Your task to perform on an android device: Go to battery settings Image 0: 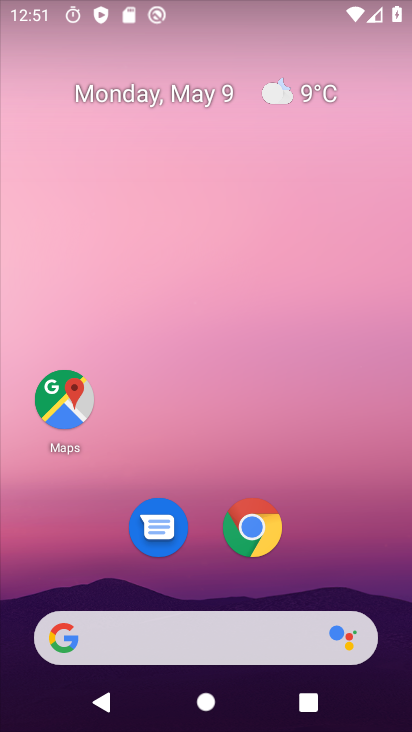
Step 0: drag from (198, 549) to (298, 62)
Your task to perform on an android device: Go to battery settings Image 1: 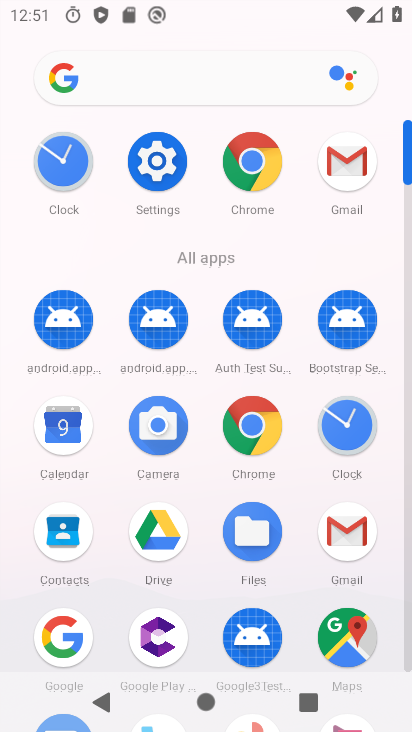
Step 1: click (145, 164)
Your task to perform on an android device: Go to battery settings Image 2: 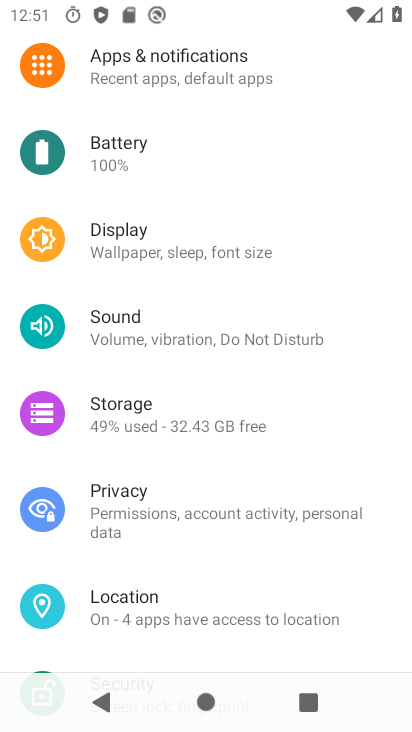
Step 2: drag from (168, 596) to (271, 63)
Your task to perform on an android device: Go to battery settings Image 3: 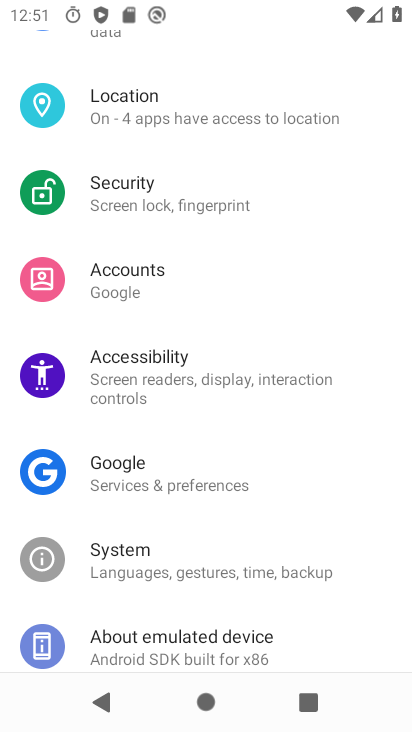
Step 3: drag from (190, 108) to (152, 620)
Your task to perform on an android device: Go to battery settings Image 4: 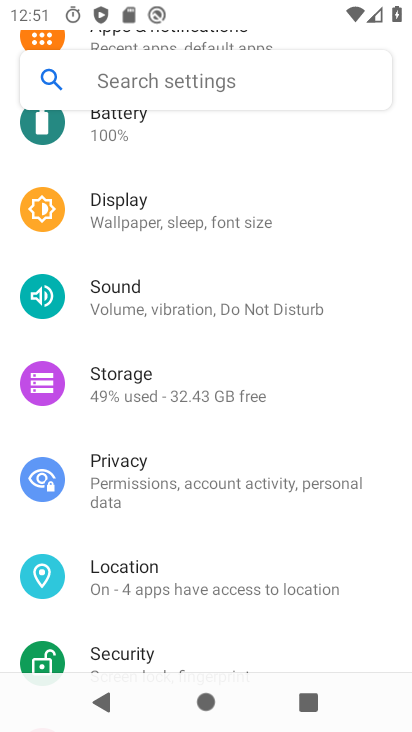
Step 4: drag from (192, 186) to (173, 417)
Your task to perform on an android device: Go to battery settings Image 5: 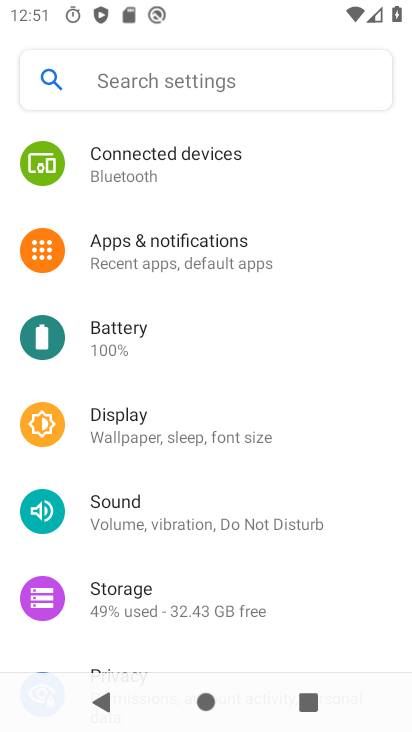
Step 5: click (122, 338)
Your task to perform on an android device: Go to battery settings Image 6: 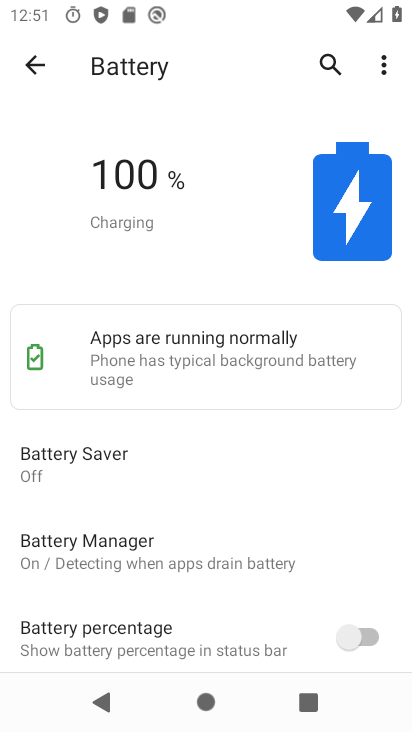
Step 6: task complete